Your task to perform on an android device: check battery use Image 0: 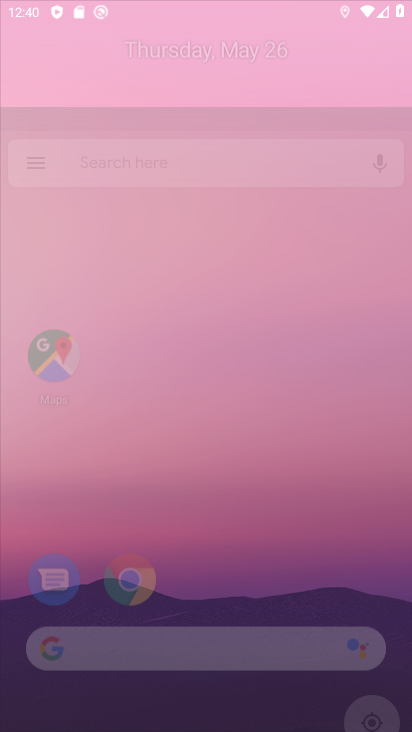
Step 0: click (227, 171)
Your task to perform on an android device: check battery use Image 1: 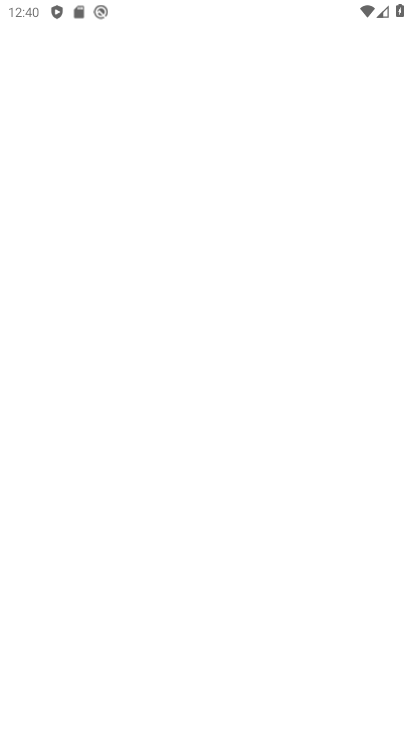
Step 1: press back button
Your task to perform on an android device: check battery use Image 2: 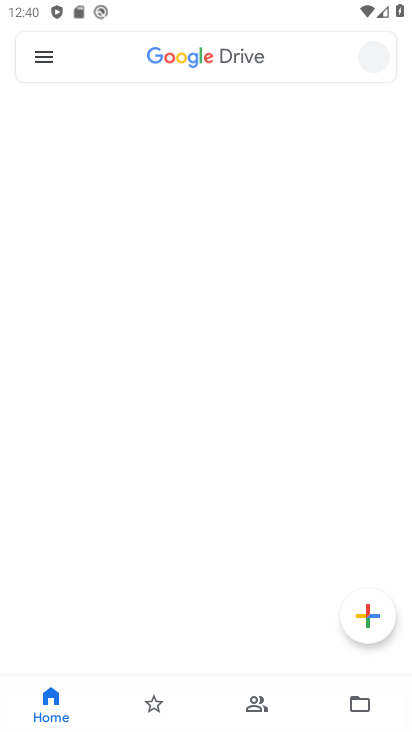
Step 2: press home button
Your task to perform on an android device: check battery use Image 3: 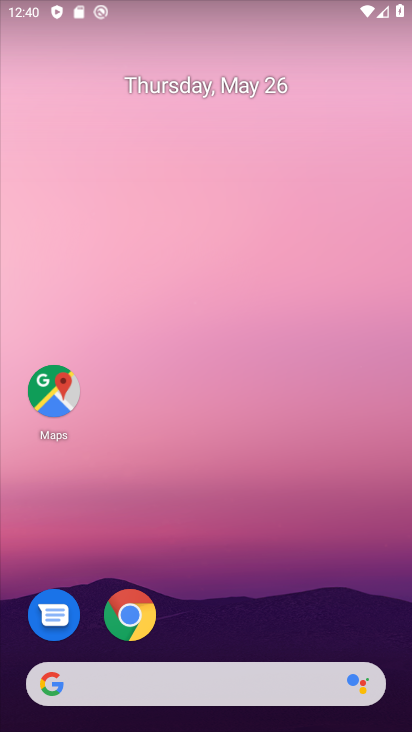
Step 3: drag from (212, 618) to (271, 20)
Your task to perform on an android device: check battery use Image 4: 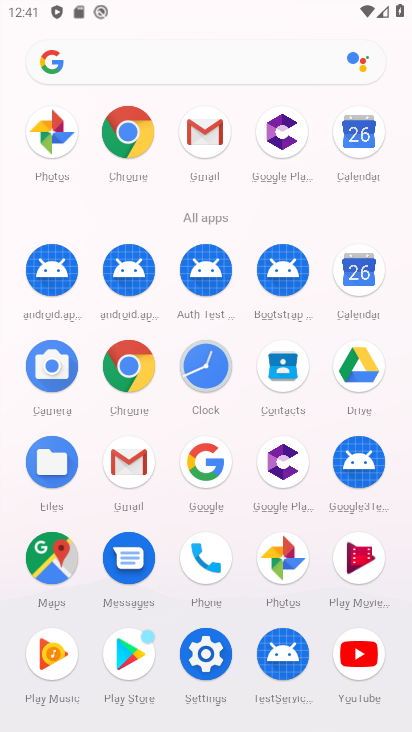
Step 4: click (189, 660)
Your task to perform on an android device: check battery use Image 5: 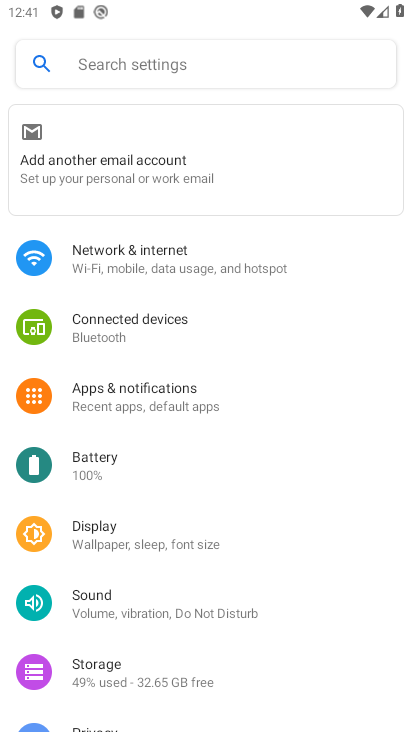
Step 5: click (113, 460)
Your task to perform on an android device: check battery use Image 6: 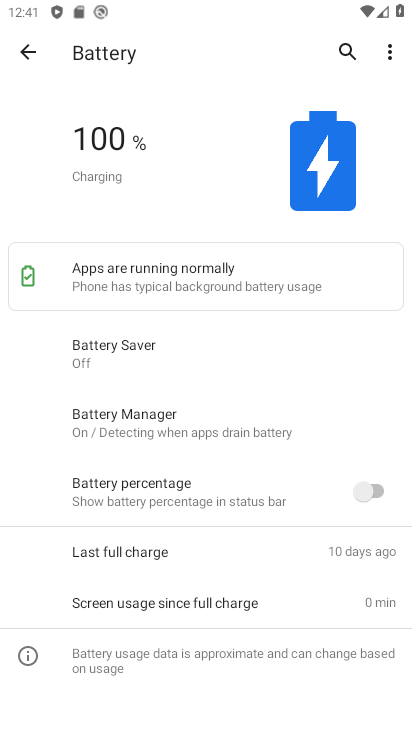
Step 6: click (393, 47)
Your task to perform on an android device: check battery use Image 7: 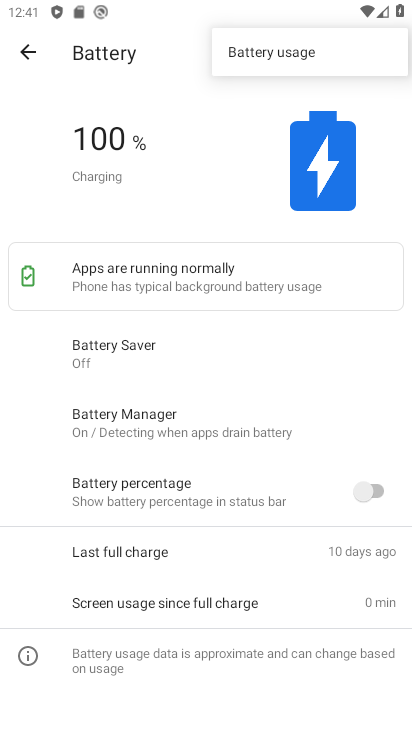
Step 7: click (300, 61)
Your task to perform on an android device: check battery use Image 8: 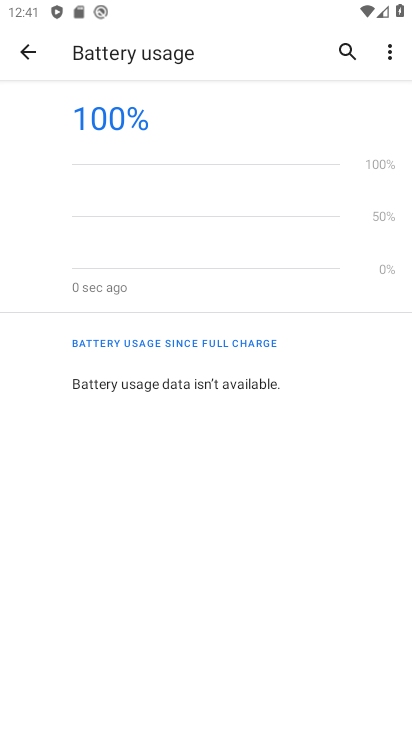
Step 8: task complete